Your task to perform on an android device: Clear the shopping cart on target. Image 0: 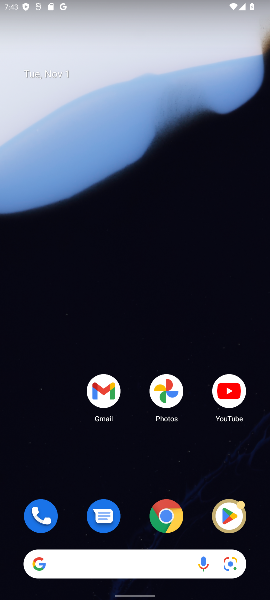
Step 0: press home button
Your task to perform on an android device: Clear the shopping cart on target. Image 1: 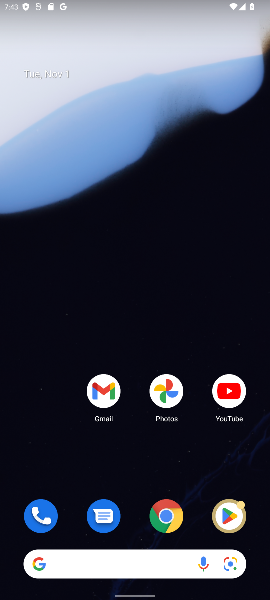
Step 1: drag from (132, 498) to (136, 56)
Your task to perform on an android device: Clear the shopping cart on target. Image 2: 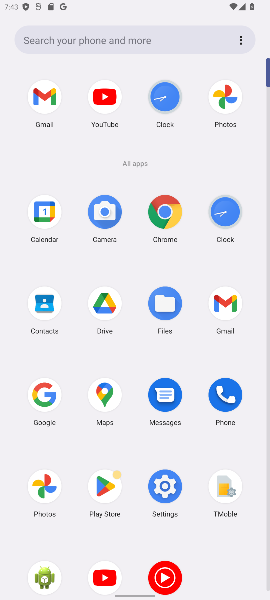
Step 2: click (164, 212)
Your task to perform on an android device: Clear the shopping cart on target. Image 3: 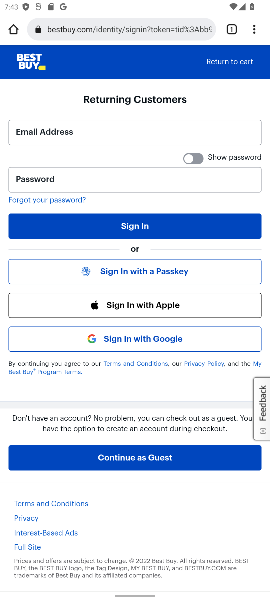
Step 3: click (79, 28)
Your task to perform on an android device: Clear the shopping cart on target. Image 4: 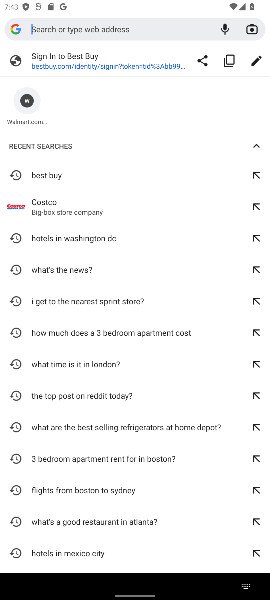
Step 4: type "target"
Your task to perform on an android device: Clear the shopping cart on target. Image 5: 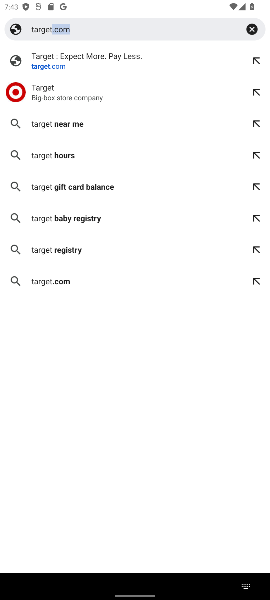
Step 5: click (78, 63)
Your task to perform on an android device: Clear the shopping cart on target. Image 6: 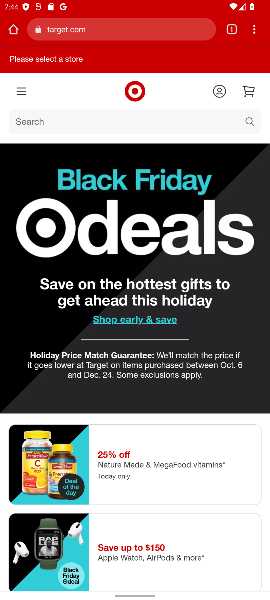
Step 6: click (248, 84)
Your task to perform on an android device: Clear the shopping cart on target. Image 7: 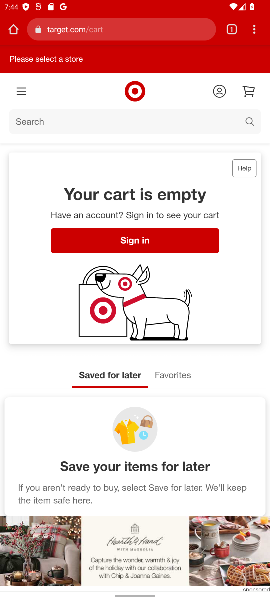
Step 7: task complete